Your task to perform on an android device: Open the phone app and click the voicemail tab. Image 0: 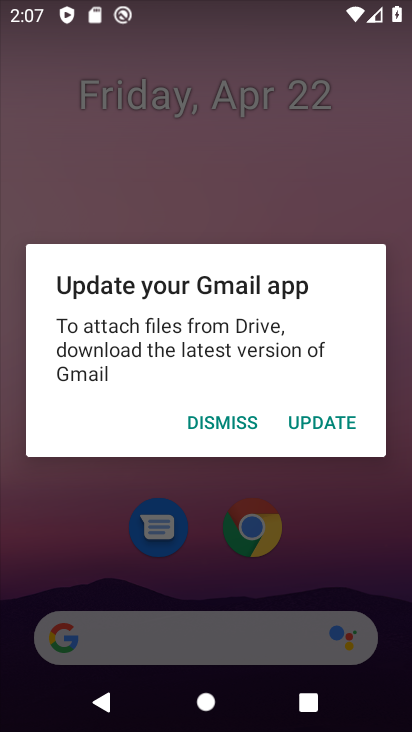
Step 0: press home button
Your task to perform on an android device: Open the phone app and click the voicemail tab. Image 1: 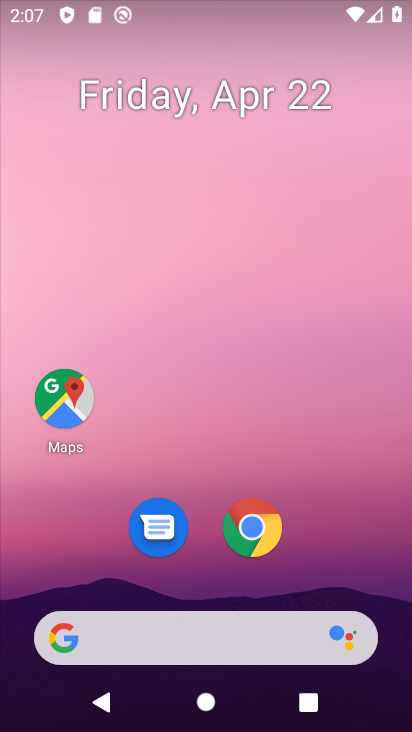
Step 1: drag from (381, 552) to (351, 95)
Your task to perform on an android device: Open the phone app and click the voicemail tab. Image 2: 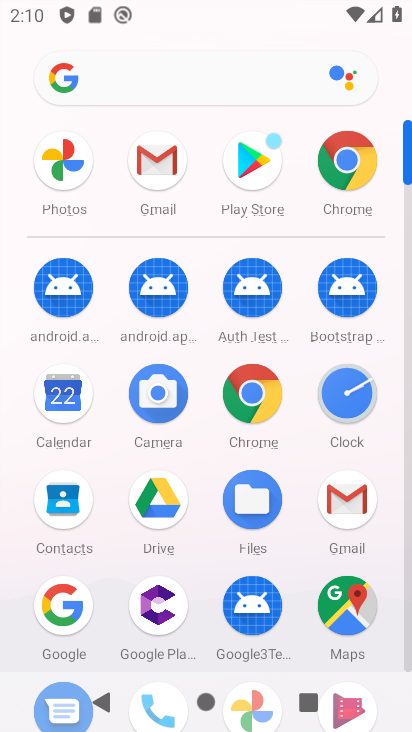
Step 2: click (408, 661)
Your task to perform on an android device: Open the phone app and click the voicemail tab. Image 3: 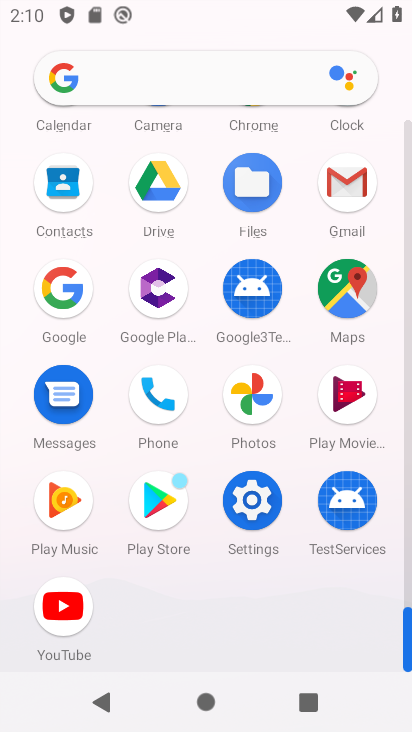
Step 3: click (163, 406)
Your task to perform on an android device: Open the phone app and click the voicemail tab. Image 4: 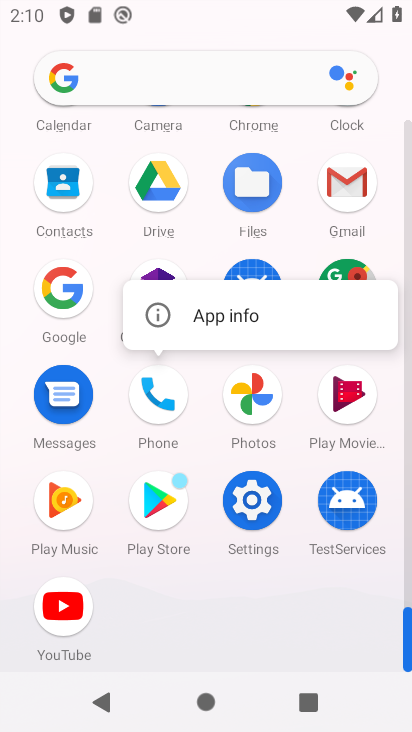
Step 4: click (163, 405)
Your task to perform on an android device: Open the phone app and click the voicemail tab. Image 5: 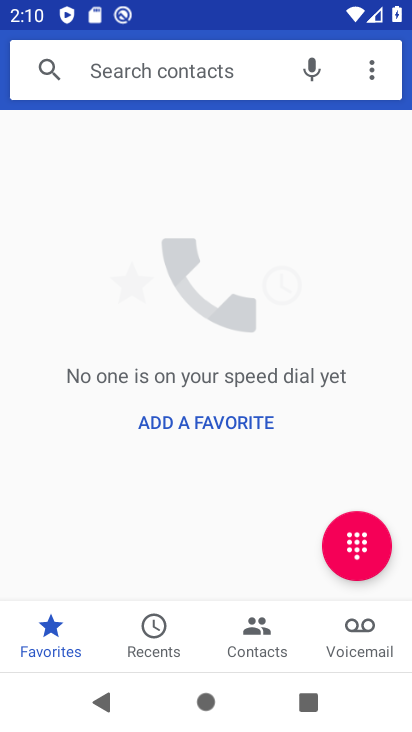
Step 5: click (351, 631)
Your task to perform on an android device: Open the phone app and click the voicemail tab. Image 6: 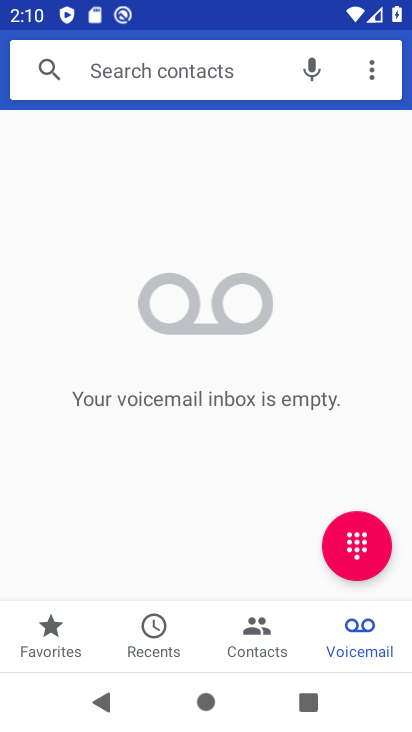
Step 6: task complete